Your task to perform on an android device: turn off translation in the chrome app Image 0: 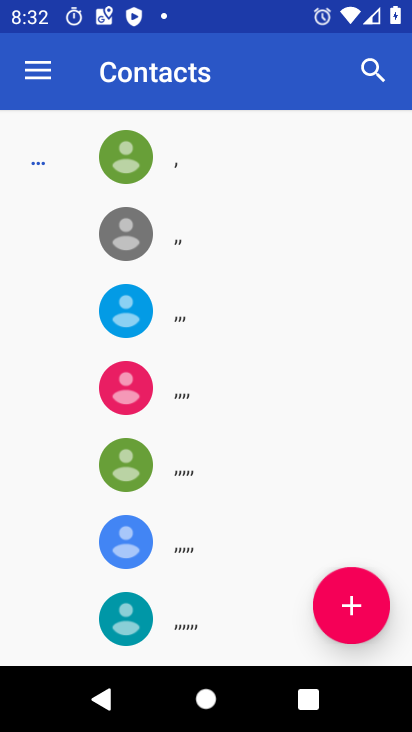
Step 0: press home button
Your task to perform on an android device: turn off translation in the chrome app Image 1: 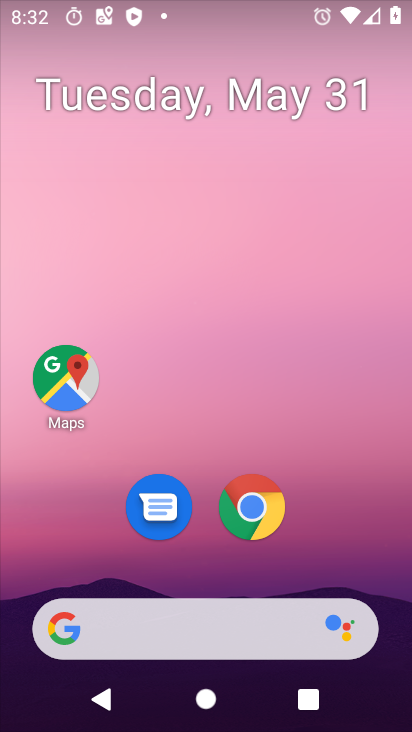
Step 1: click (261, 518)
Your task to perform on an android device: turn off translation in the chrome app Image 2: 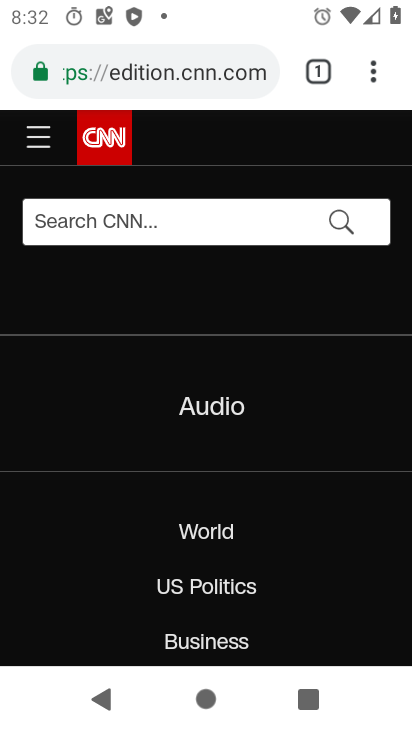
Step 2: click (373, 68)
Your task to perform on an android device: turn off translation in the chrome app Image 3: 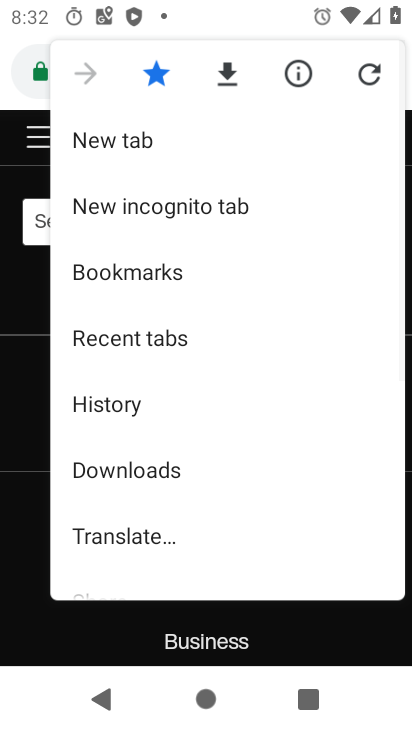
Step 3: drag from (246, 500) to (221, 119)
Your task to perform on an android device: turn off translation in the chrome app Image 4: 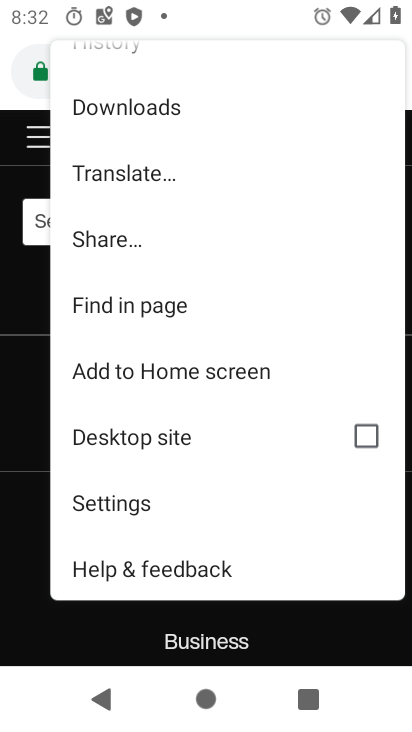
Step 4: click (134, 506)
Your task to perform on an android device: turn off translation in the chrome app Image 5: 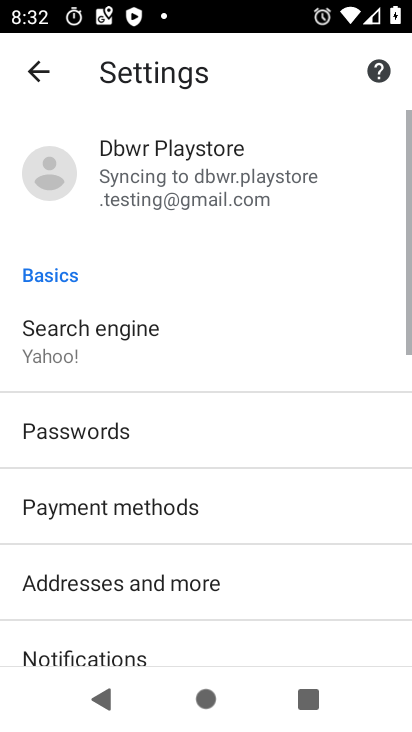
Step 5: drag from (222, 542) to (220, 148)
Your task to perform on an android device: turn off translation in the chrome app Image 6: 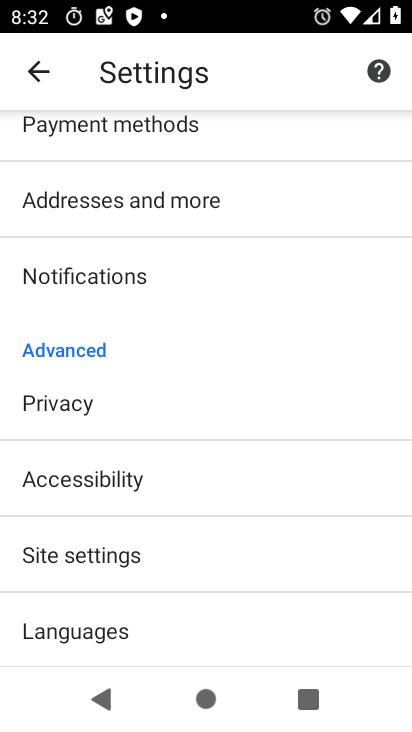
Step 6: drag from (188, 559) to (178, 289)
Your task to perform on an android device: turn off translation in the chrome app Image 7: 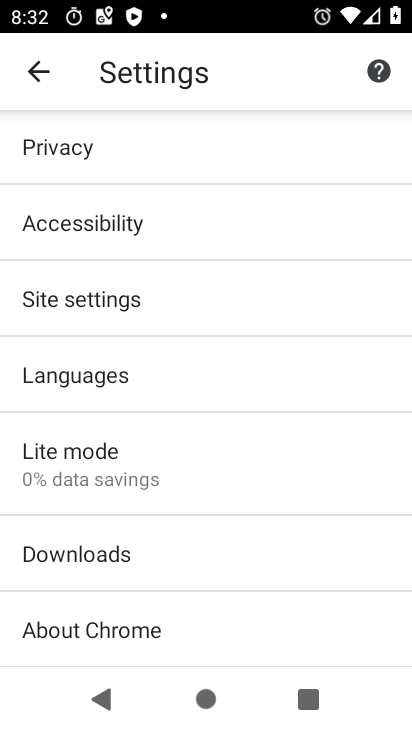
Step 7: click (91, 381)
Your task to perform on an android device: turn off translation in the chrome app Image 8: 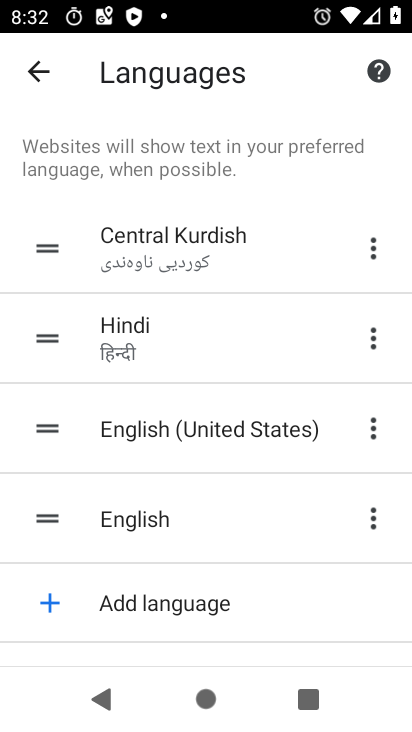
Step 8: drag from (201, 532) to (187, 178)
Your task to perform on an android device: turn off translation in the chrome app Image 9: 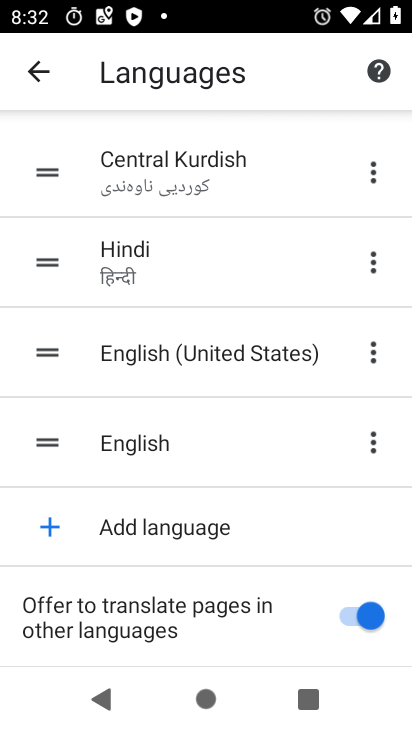
Step 9: click (361, 622)
Your task to perform on an android device: turn off translation in the chrome app Image 10: 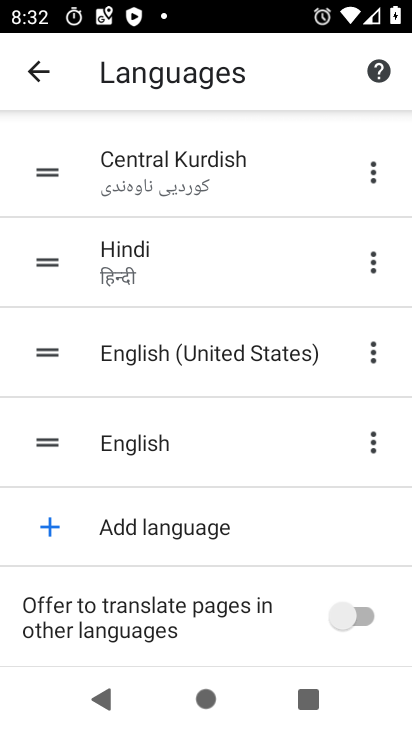
Step 10: task complete